Your task to perform on an android device: Open battery settings Image 0: 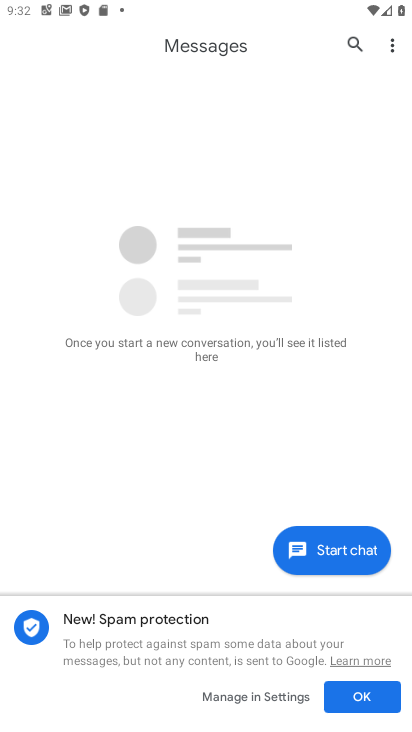
Step 0: press home button
Your task to perform on an android device: Open battery settings Image 1: 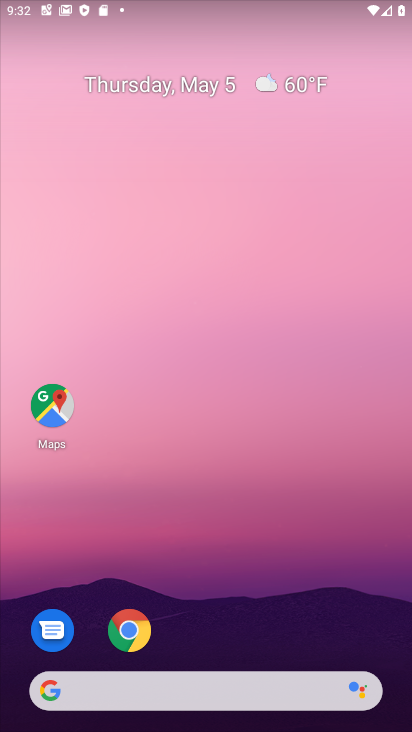
Step 1: drag from (365, 9) to (307, 388)
Your task to perform on an android device: Open battery settings Image 2: 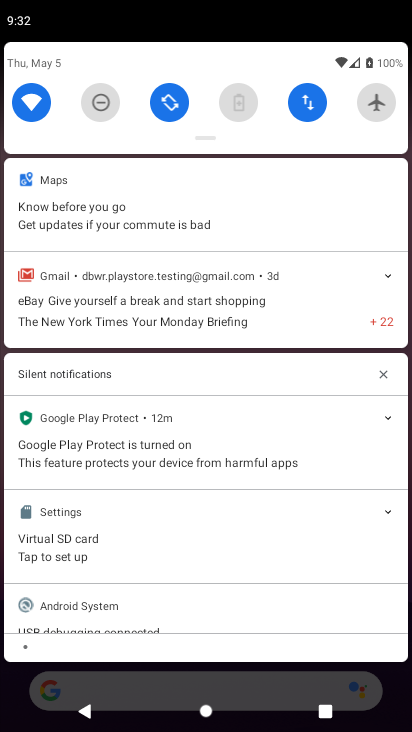
Step 2: drag from (228, 139) to (224, 508)
Your task to perform on an android device: Open battery settings Image 3: 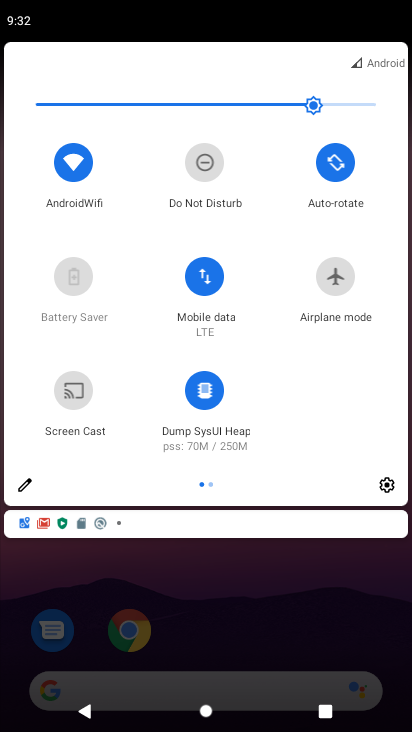
Step 3: click (389, 484)
Your task to perform on an android device: Open battery settings Image 4: 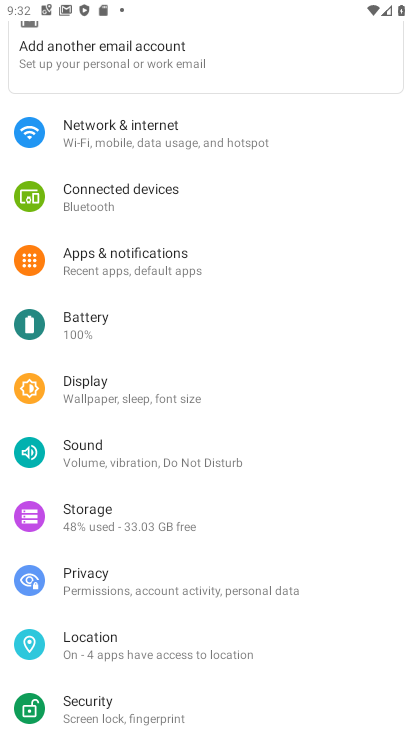
Step 4: click (112, 320)
Your task to perform on an android device: Open battery settings Image 5: 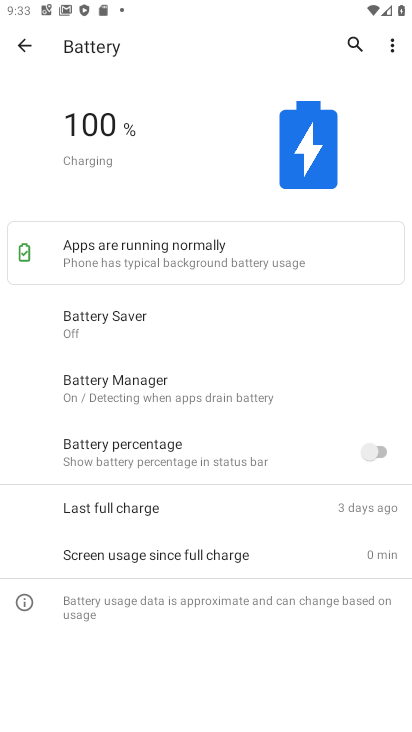
Step 5: task complete